Your task to perform on an android device: turn on priority inbox in the gmail app Image 0: 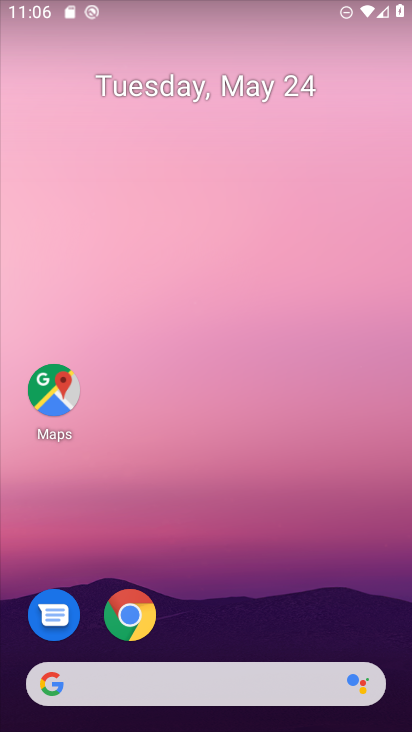
Step 0: press home button
Your task to perform on an android device: turn on priority inbox in the gmail app Image 1: 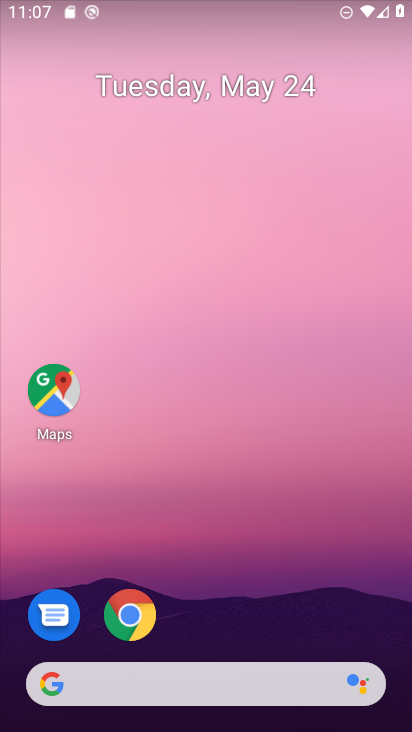
Step 1: drag from (246, 724) to (322, 75)
Your task to perform on an android device: turn on priority inbox in the gmail app Image 2: 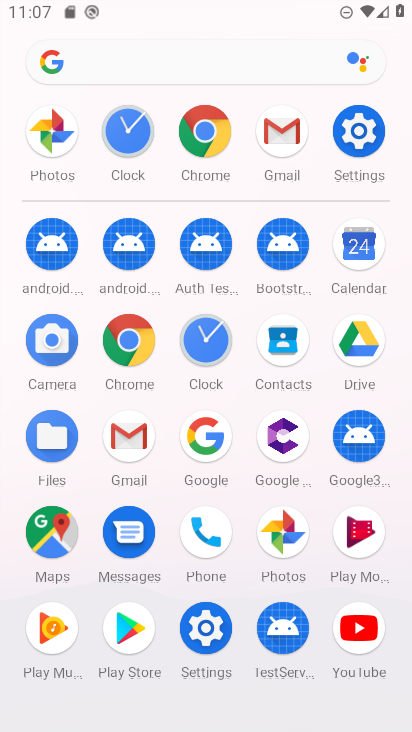
Step 2: click (282, 129)
Your task to perform on an android device: turn on priority inbox in the gmail app Image 3: 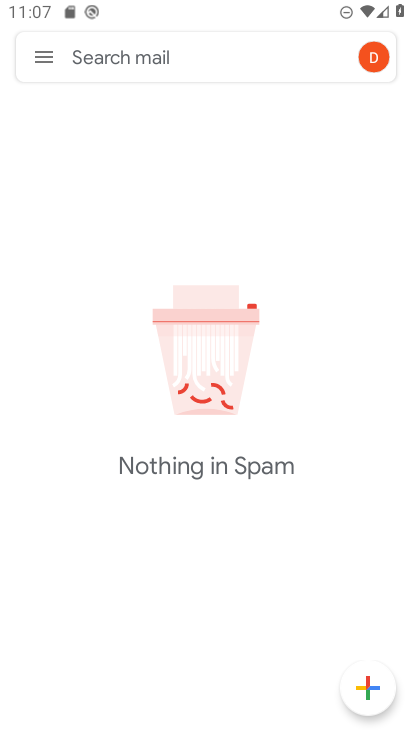
Step 3: click (56, 54)
Your task to perform on an android device: turn on priority inbox in the gmail app Image 4: 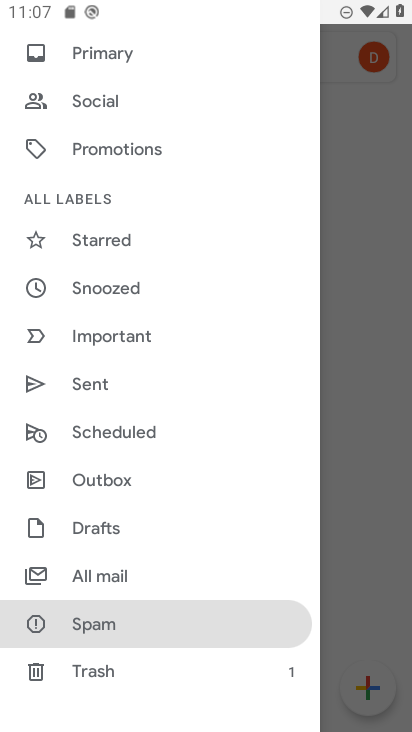
Step 4: drag from (119, 637) to (250, 280)
Your task to perform on an android device: turn on priority inbox in the gmail app Image 5: 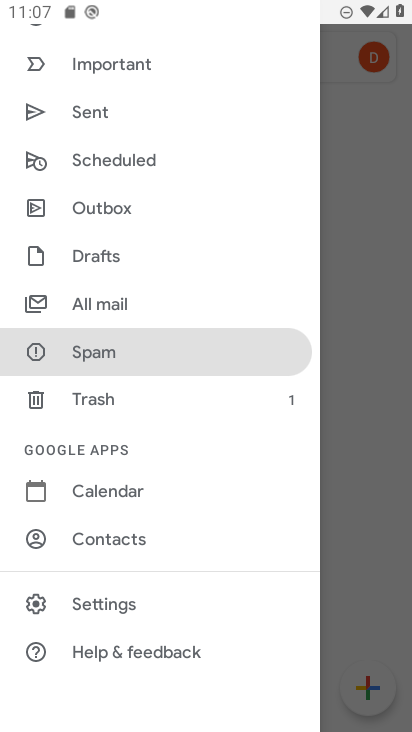
Step 5: click (119, 610)
Your task to perform on an android device: turn on priority inbox in the gmail app Image 6: 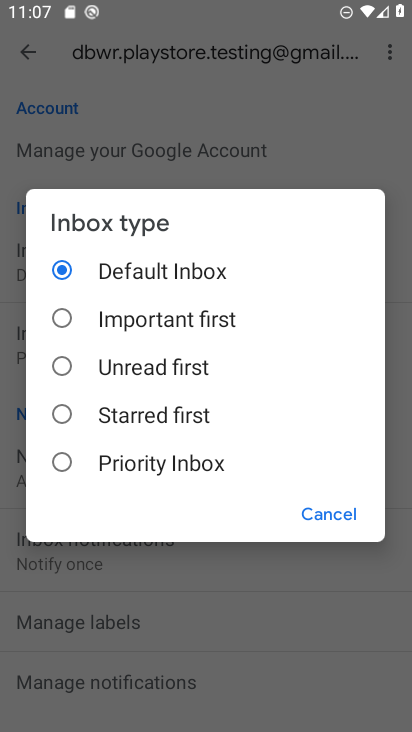
Step 6: click (126, 472)
Your task to perform on an android device: turn on priority inbox in the gmail app Image 7: 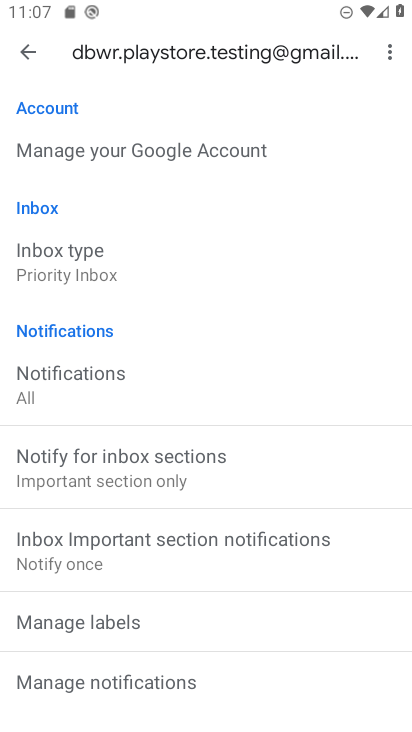
Step 7: click (110, 271)
Your task to perform on an android device: turn on priority inbox in the gmail app Image 8: 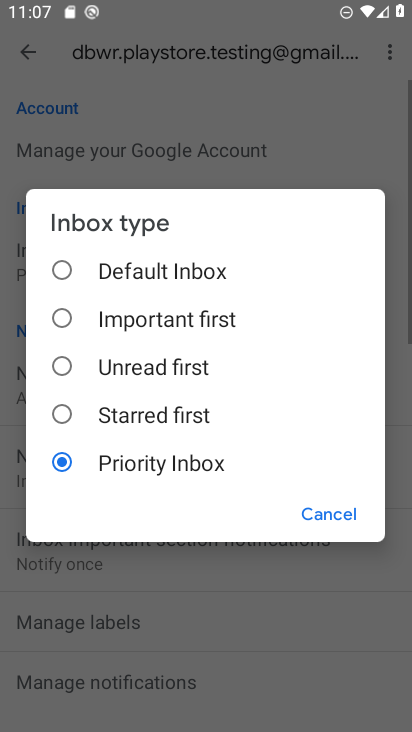
Step 8: task complete